Your task to perform on an android device: Open Reddit.com Image 0: 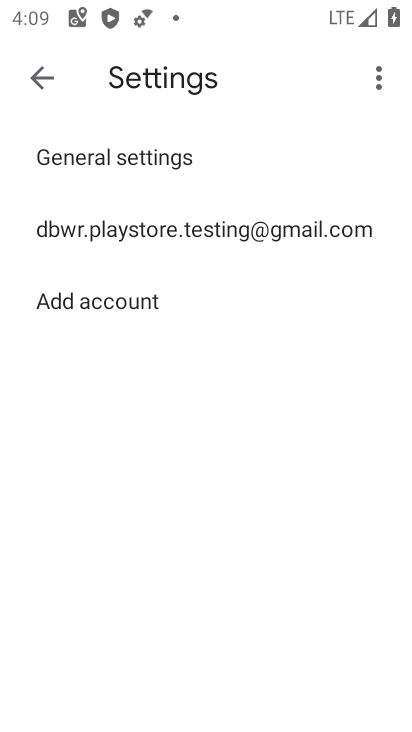
Step 0: press home button
Your task to perform on an android device: Open Reddit.com Image 1: 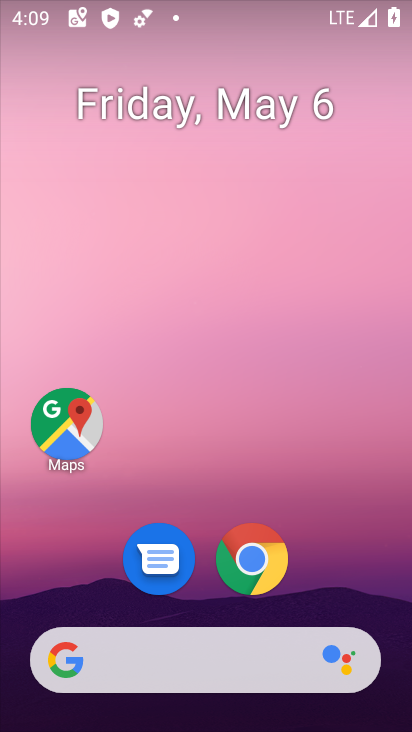
Step 1: click (241, 565)
Your task to perform on an android device: Open Reddit.com Image 2: 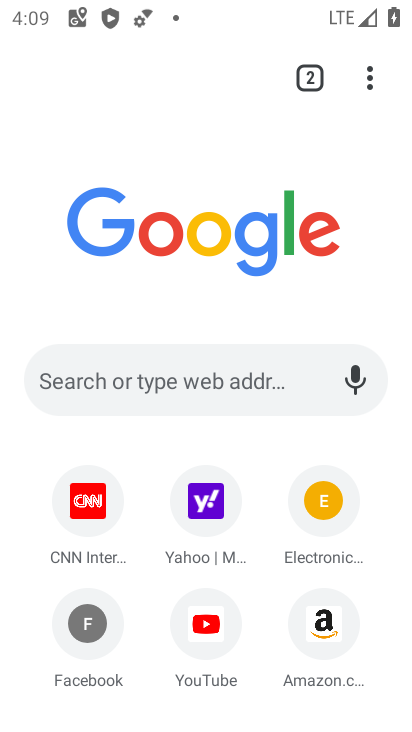
Step 2: click (144, 375)
Your task to perform on an android device: Open Reddit.com Image 3: 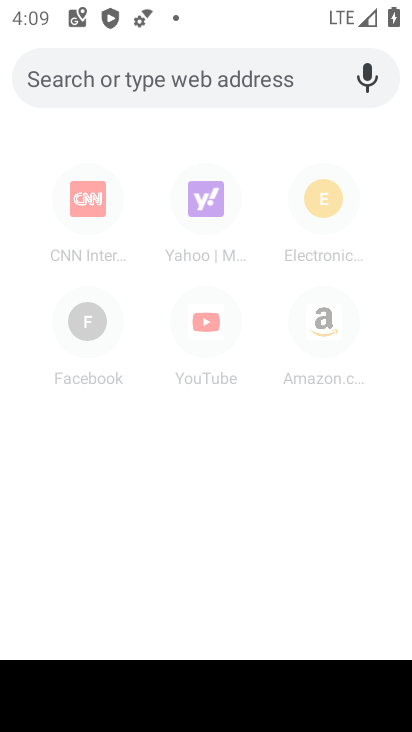
Step 3: type "Reddit.com"
Your task to perform on an android device: Open Reddit.com Image 4: 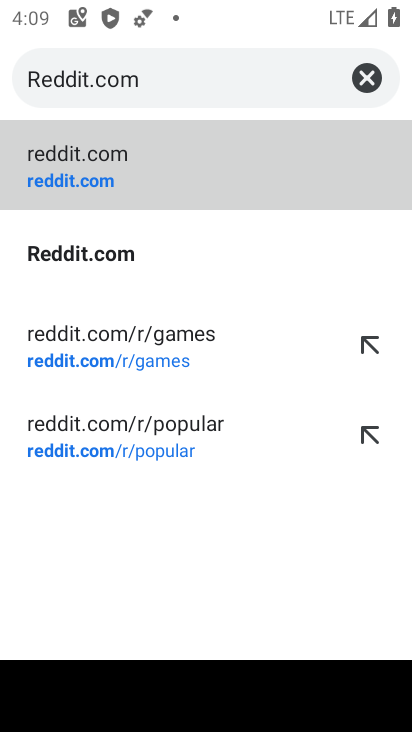
Step 4: click (129, 269)
Your task to perform on an android device: Open Reddit.com Image 5: 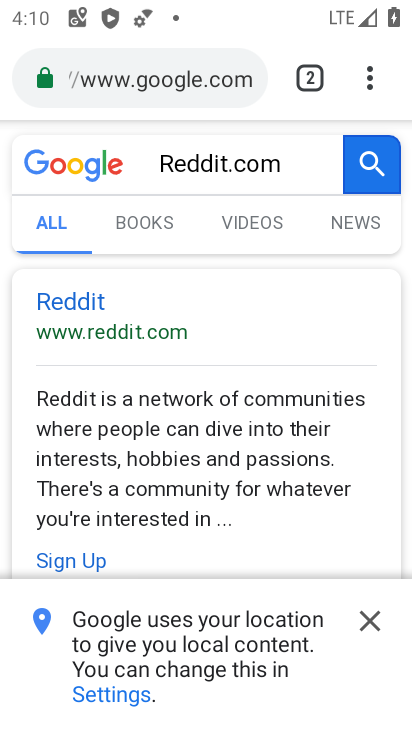
Step 5: task complete